Your task to perform on an android device: Set the phone to "Do not disturb". Image 0: 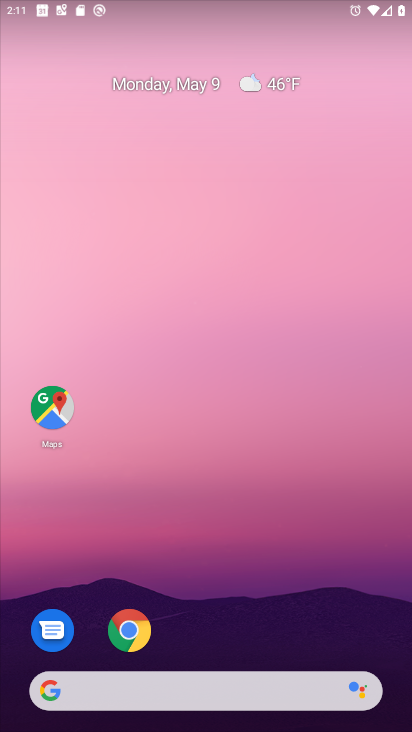
Step 0: drag from (324, 717) to (178, 207)
Your task to perform on an android device: Set the phone to "Do not disturb". Image 1: 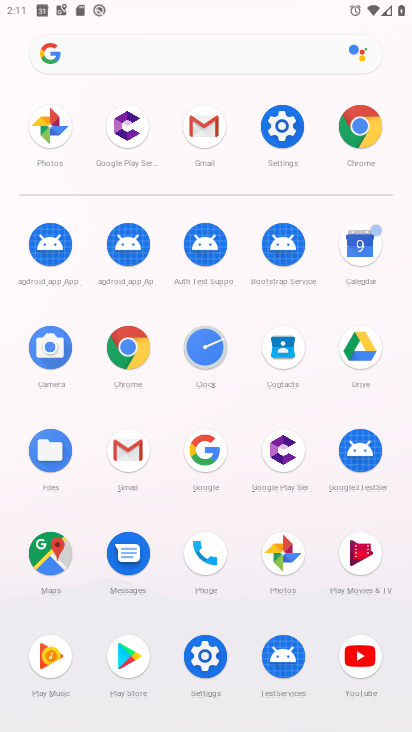
Step 1: click (266, 127)
Your task to perform on an android device: Set the phone to "Do not disturb". Image 2: 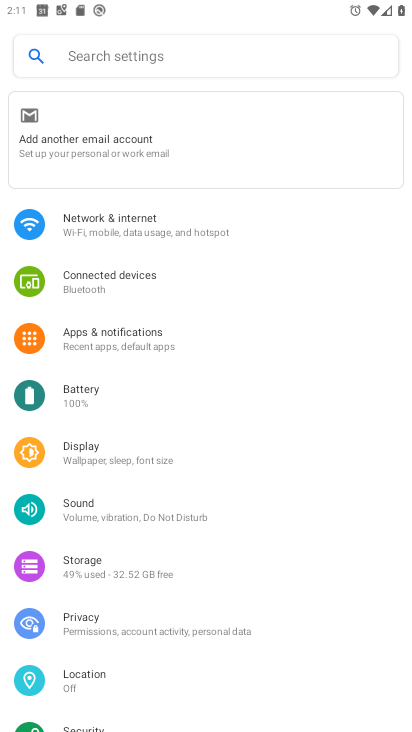
Step 2: click (86, 63)
Your task to perform on an android device: Set the phone to "Do not disturb". Image 3: 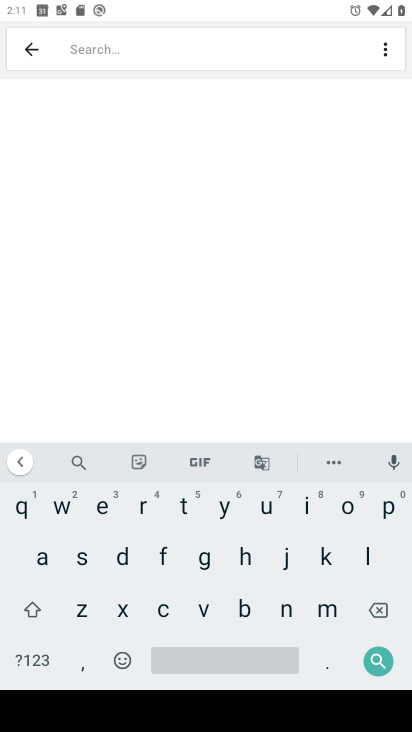
Step 3: click (121, 557)
Your task to perform on an android device: Set the phone to "Do not disturb". Image 4: 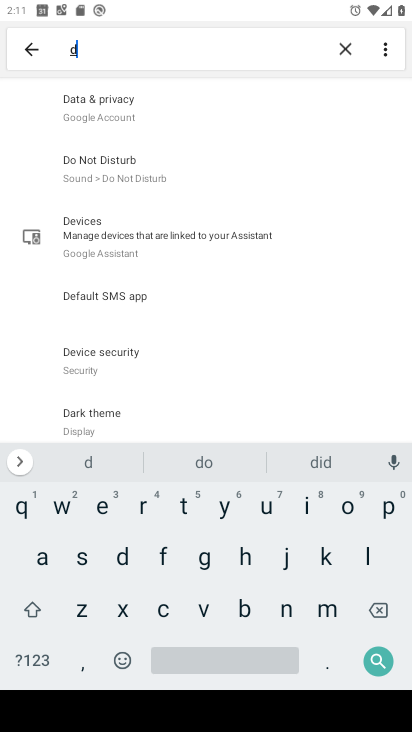
Step 4: click (290, 606)
Your task to perform on an android device: Set the phone to "Do not disturb". Image 5: 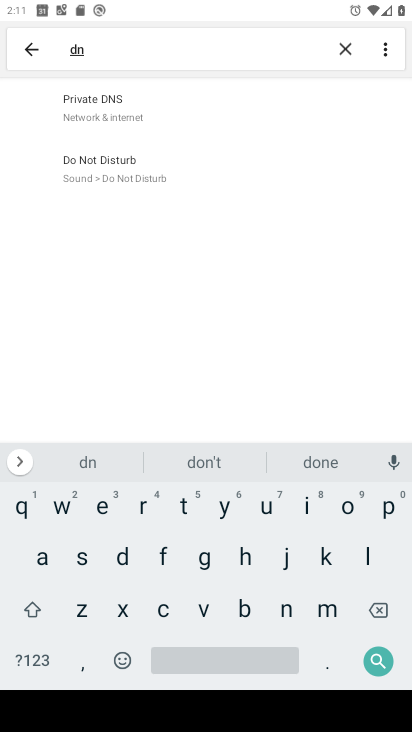
Step 5: click (115, 557)
Your task to perform on an android device: Set the phone to "Do not disturb". Image 6: 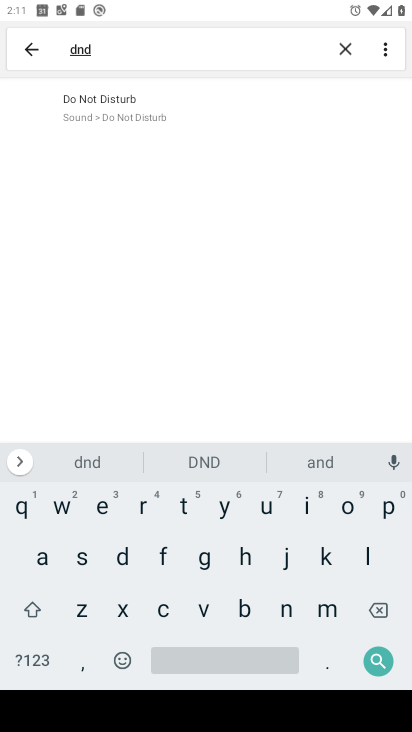
Step 6: click (135, 122)
Your task to perform on an android device: Set the phone to "Do not disturb". Image 7: 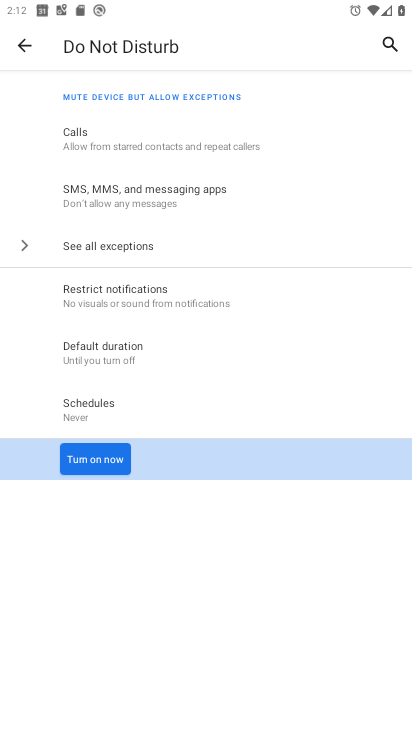
Step 7: click (100, 463)
Your task to perform on an android device: Set the phone to "Do not disturb". Image 8: 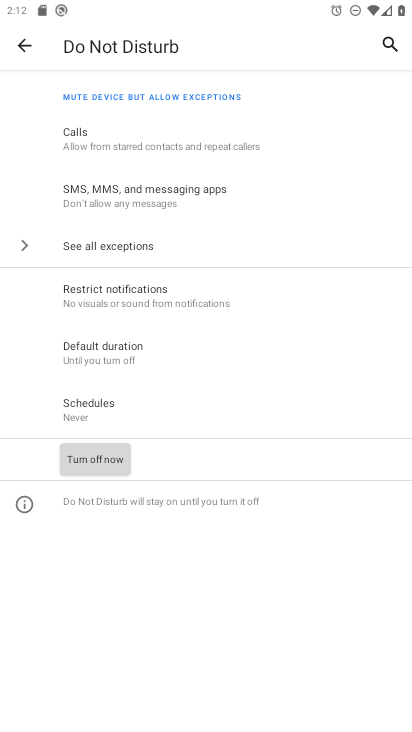
Step 8: task complete